Your task to perform on an android device: Open Google Maps and go to "Timeline" Image 0: 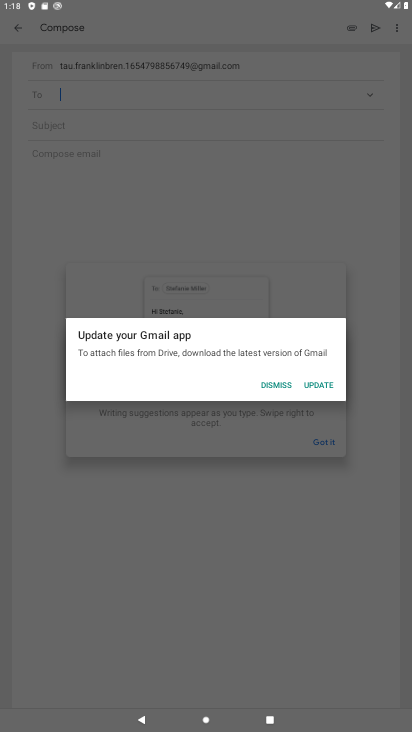
Step 0: press home button
Your task to perform on an android device: Open Google Maps and go to "Timeline" Image 1: 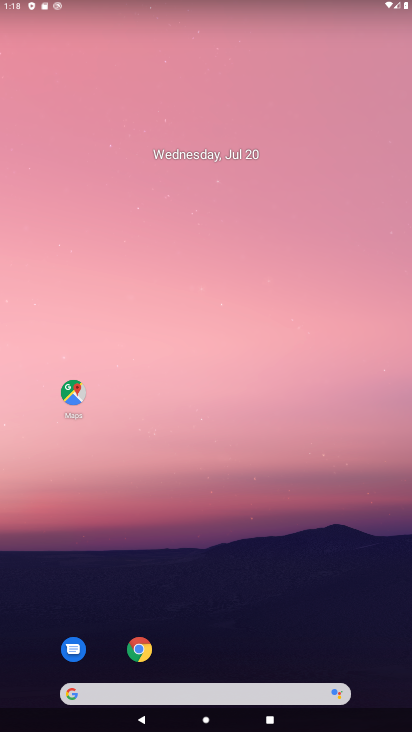
Step 1: drag from (205, 650) to (207, 192)
Your task to perform on an android device: Open Google Maps and go to "Timeline" Image 2: 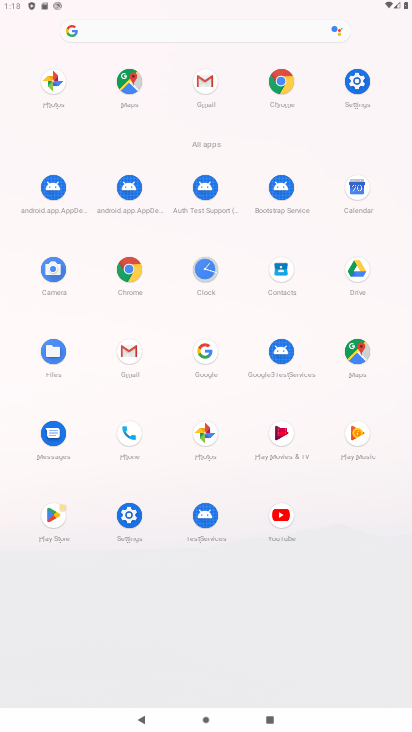
Step 2: click (364, 342)
Your task to perform on an android device: Open Google Maps and go to "Timeline" Image 3: 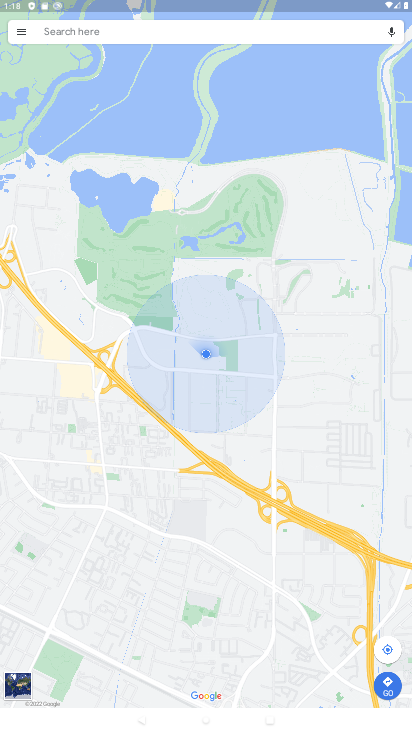
Step 3: click (27, 27)
Your task to perform on an android device: Open Google Maps and go to "Timeline" Image 4: 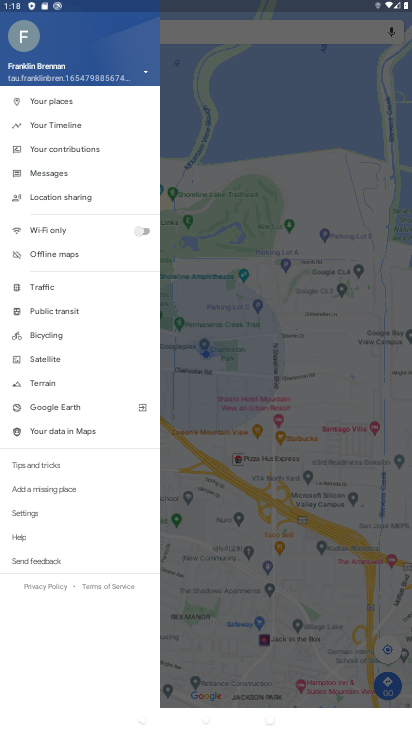
Step 4: click (81, 125)
Your task to perform on an android device: Open Google Maps and go to "Timeline" Image 5: 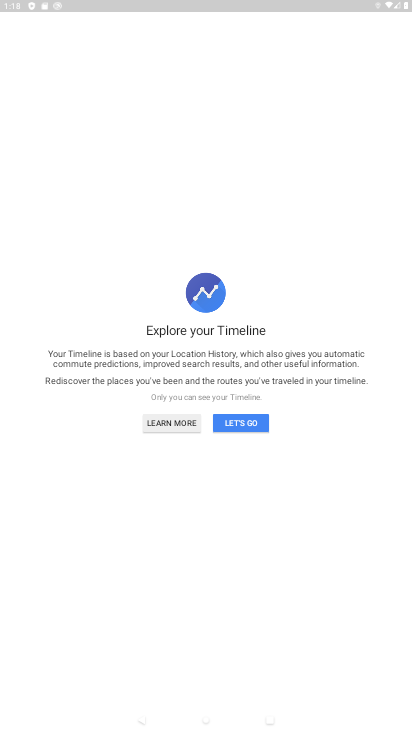
Step 5: click (256, 427)
Your task to perform on an android device: Open Google Maps and go to "Timeline" Image 6: 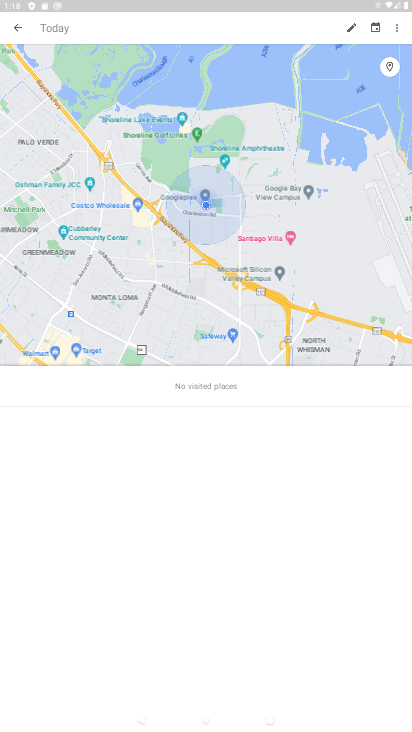
Step 6: task complete